Your task to perform on an android device: open app "Chime – Mobile Banking" (install if not already installed) Image 0: 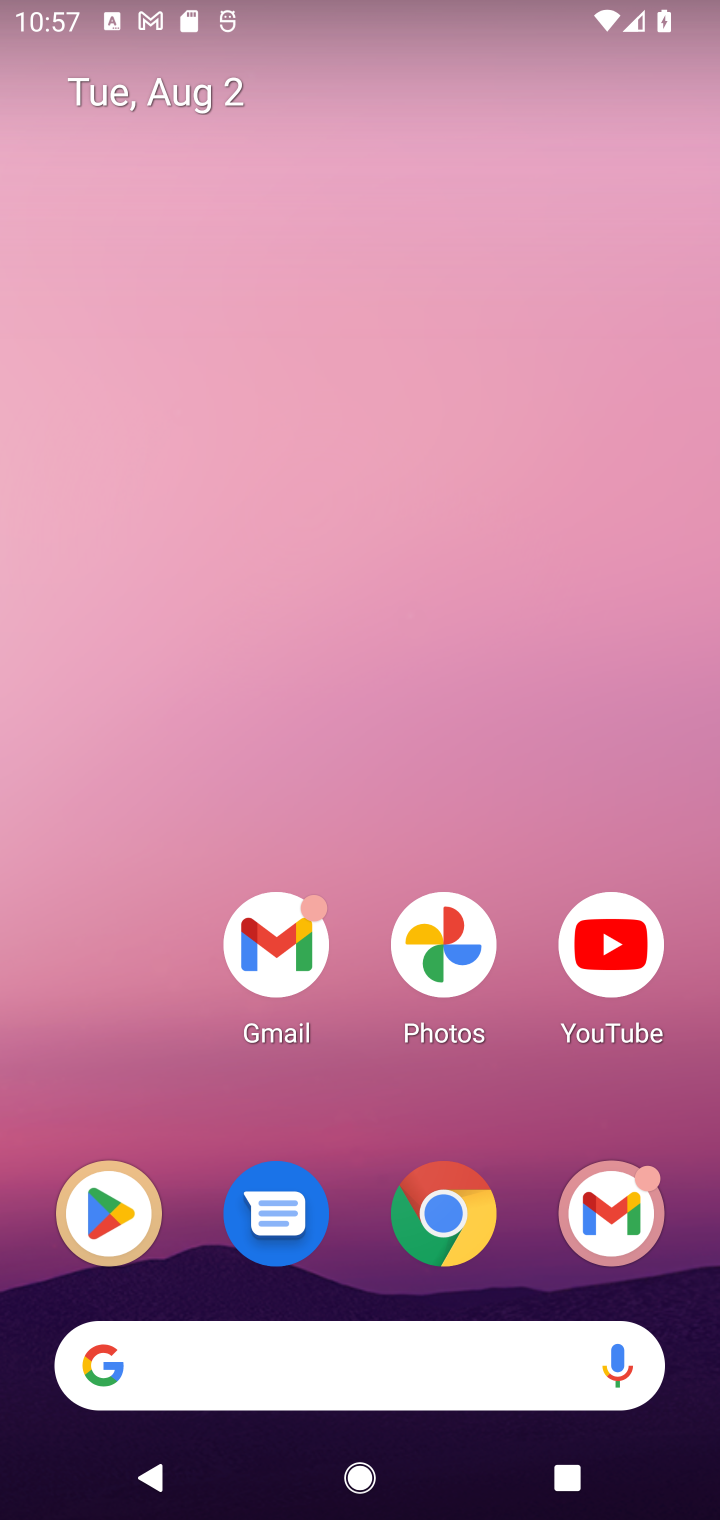
Step 0: click (98, 1228)
Your task to perform on an android device: open app "Chime – Mobile Banking" (install if not already installed) Image 1: 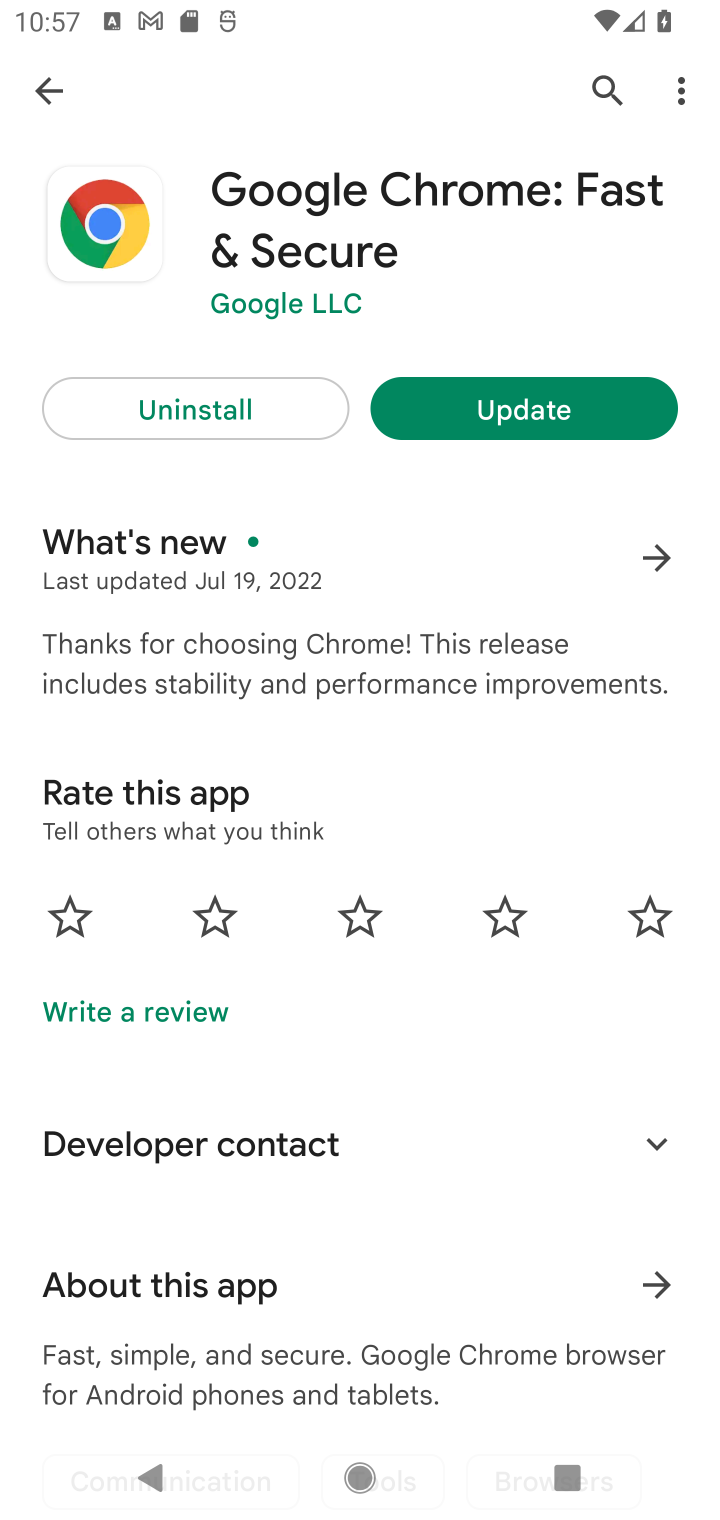
Step 1: click (42, 115)
Your task to perform on an android device: open app "Chime – Mobile Banking" (install if not already installed) Image 2: 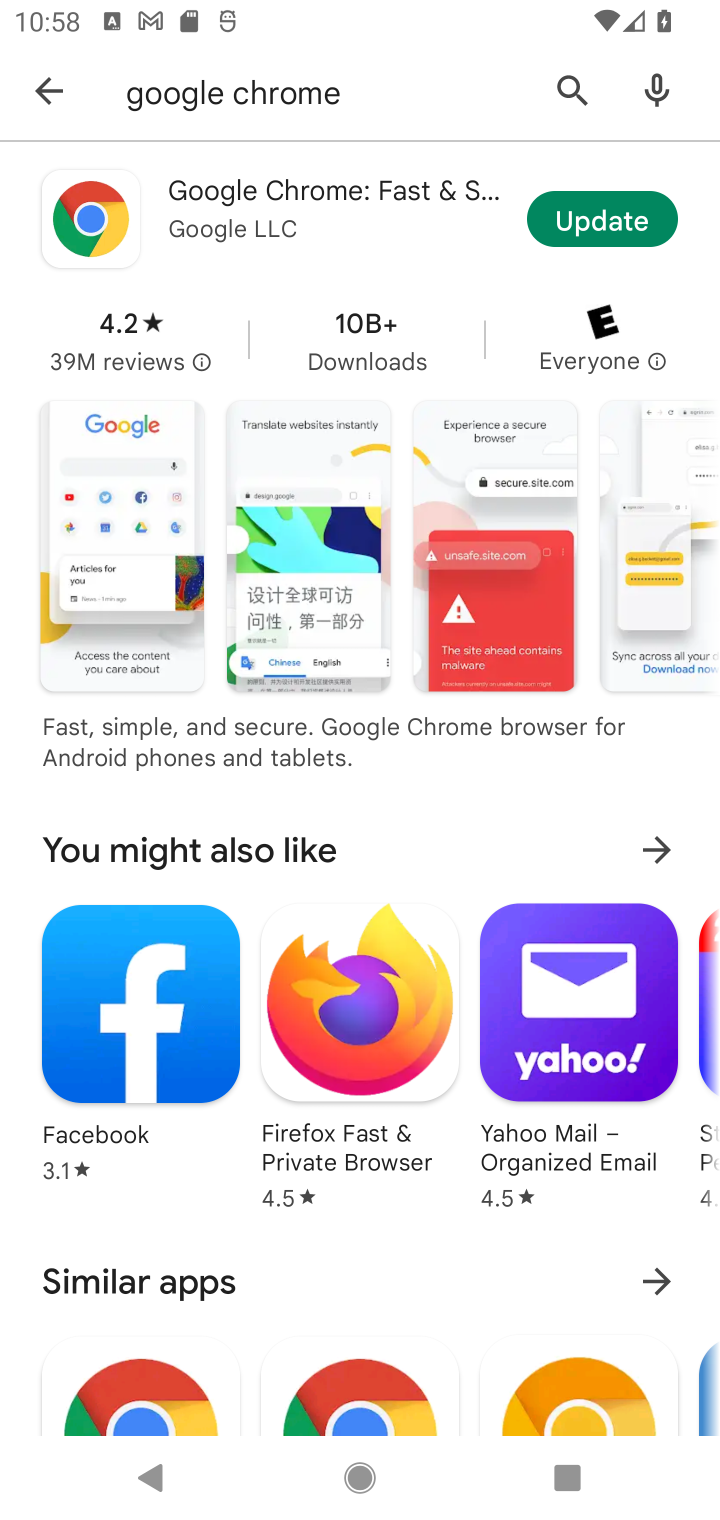
Step 2: click (42, 115)
Your task to perform on an android device: open app "Chime – Mobile Banking" (install if not already installed) Image 3: 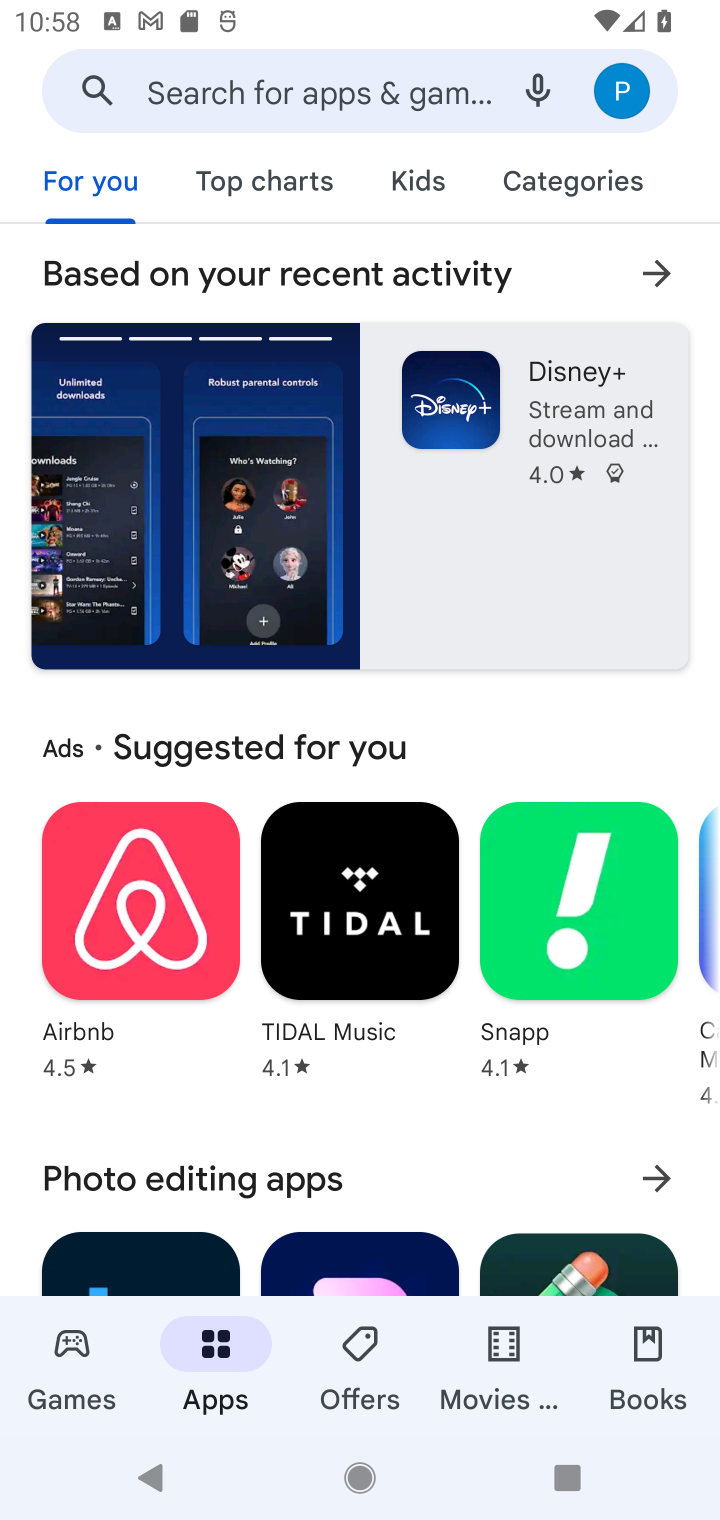
Step 3: click (291, 83)
Your task to perform on an android device: open app "Chime – Mobile Banking" (install if not already installed) Image 4: 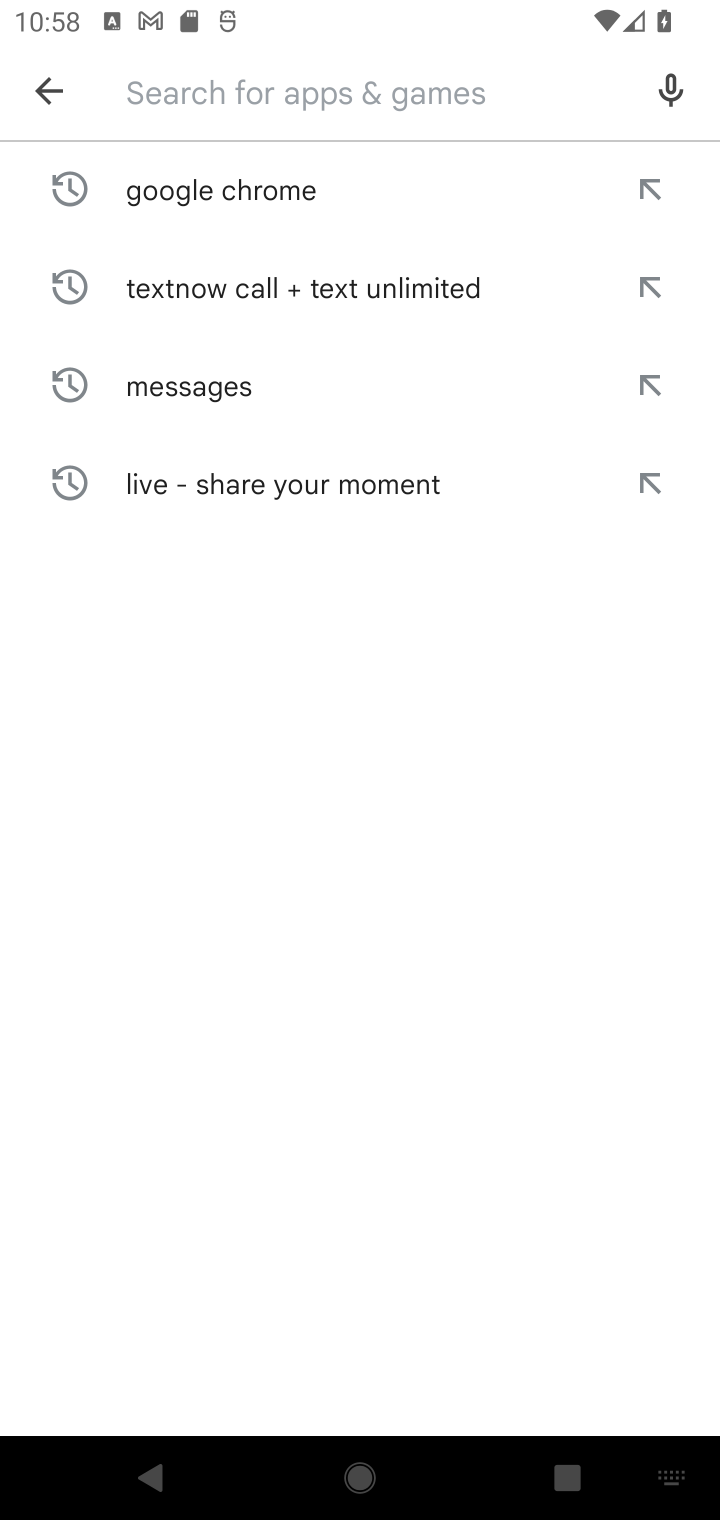
Step 4: type "Chime"
Your task to perform on an android device: open app "Chime – Mobile Banking" (install if not already installed) Image 5: 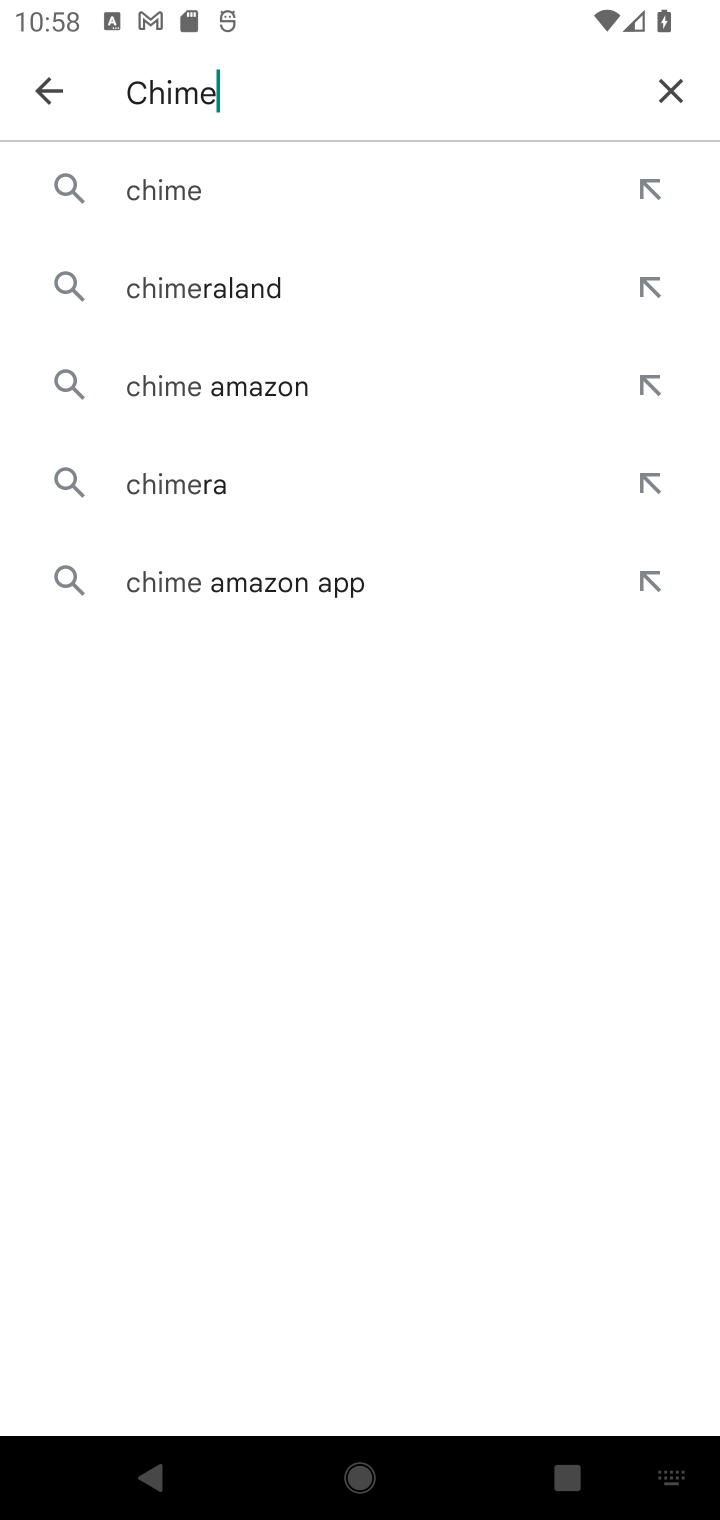
Step 5: click (160, 199)
Your task to perform on an android device: open app "Chime – Mobile Banking" (install if not already installed) Image 6: 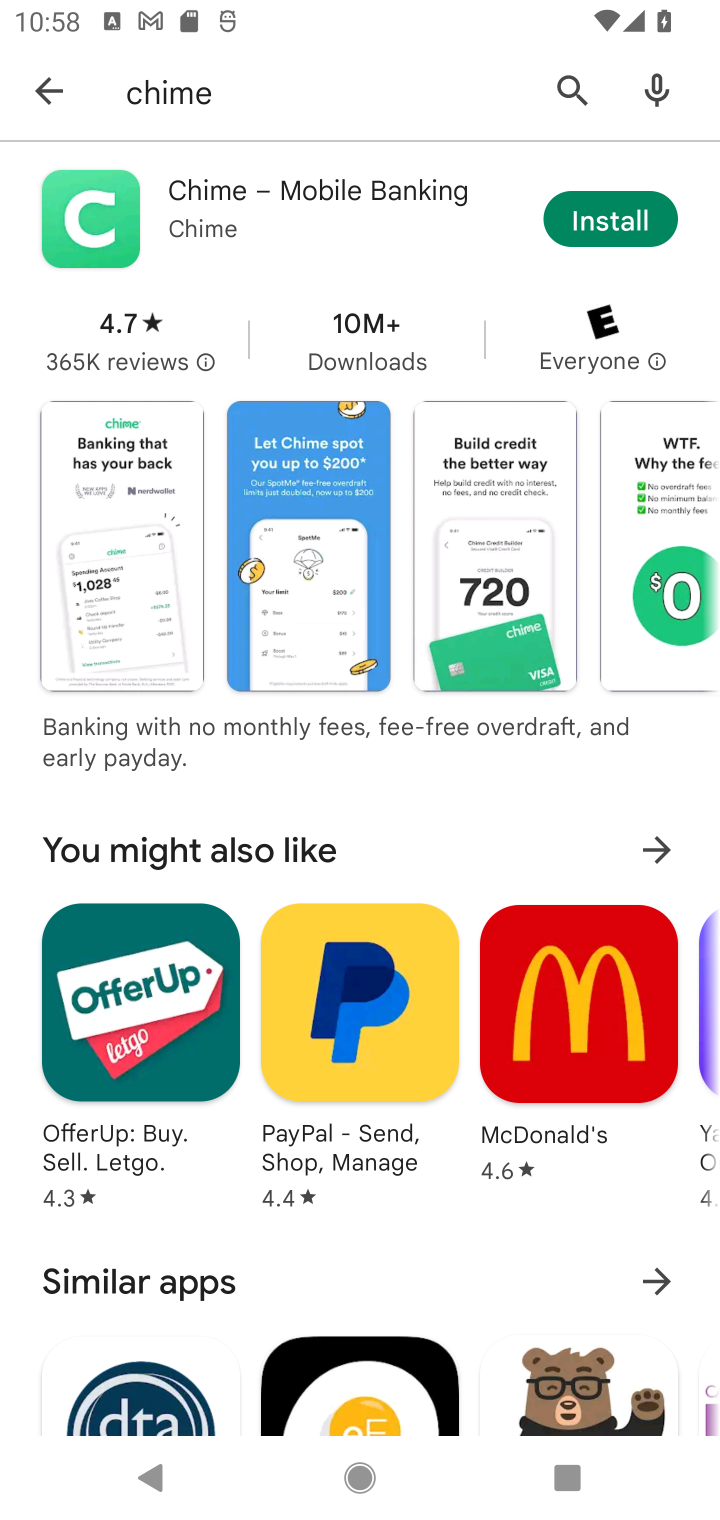
Step 6: click (621, 234)
Your task to perform on an android device: open app "Chime – Mobile Banking" (install if not already installed) Image 7: 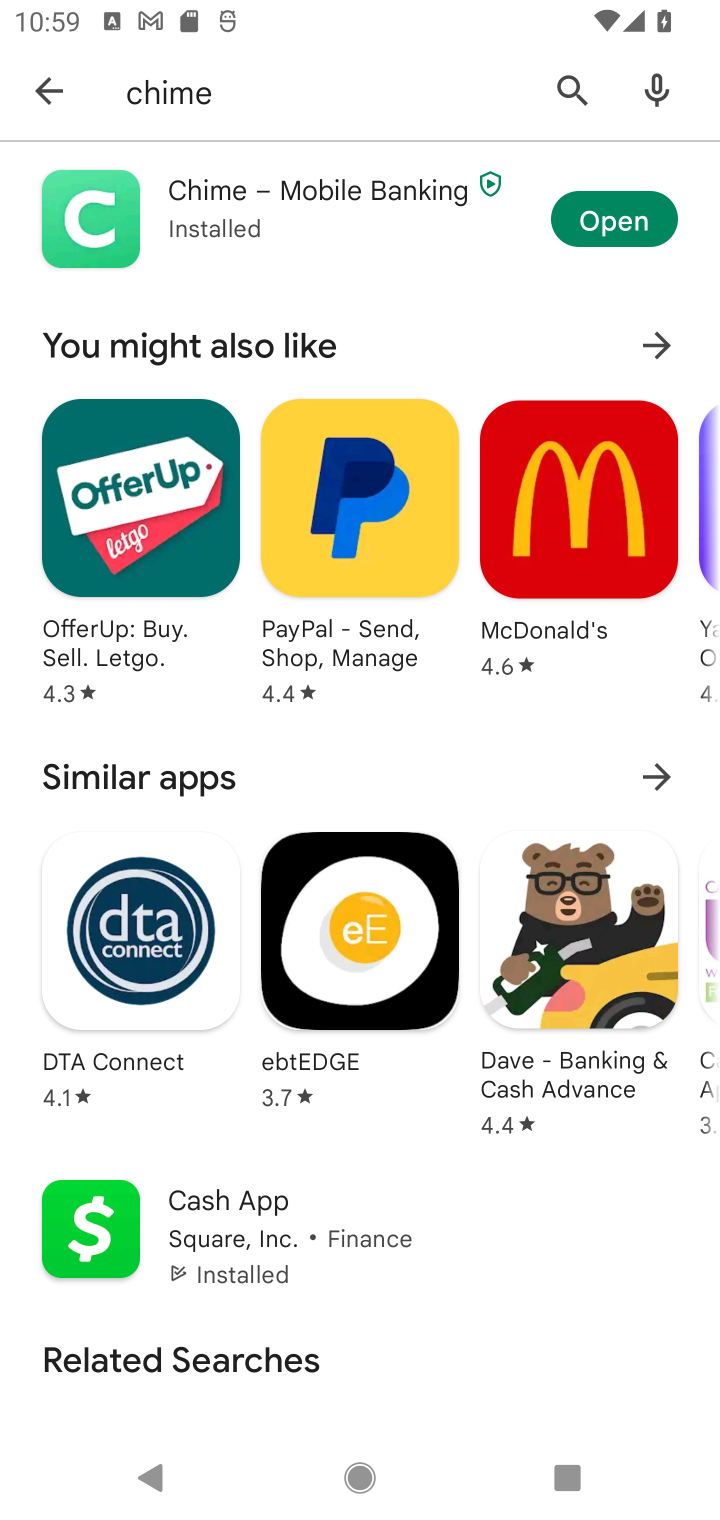
Step 7: click (590, 215)
Your task to perform on an android device: open app "Chime – Mobile Banking" (install if not already installed) Image 8: 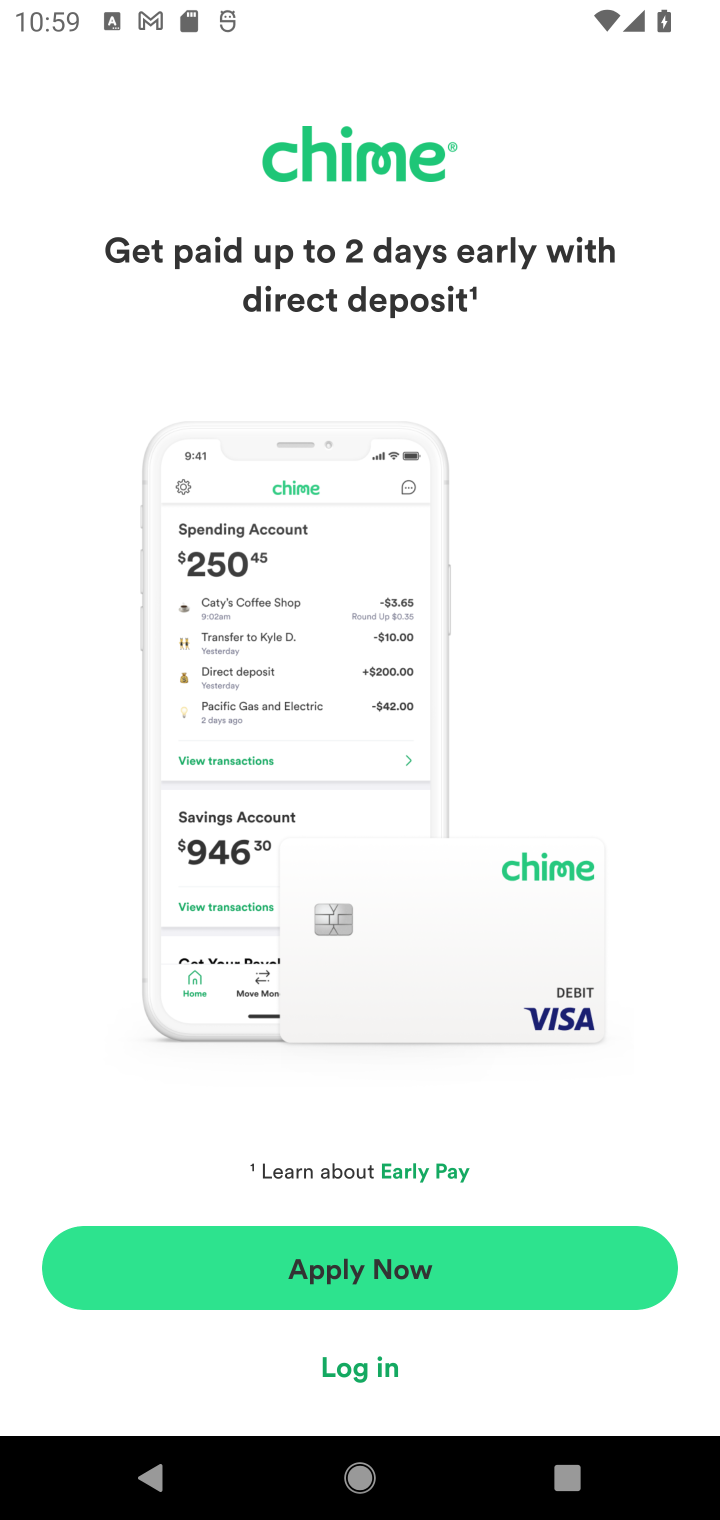
Step 8: task complete